Your task to perform on an android device: turn off priority inbox in the gmail app Image 0: 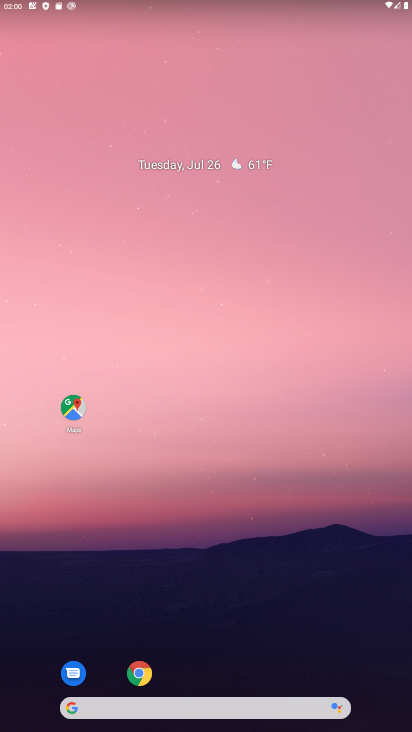
Step 0: drag from (210, 725) to (187, 131)
Your task to perform on an android device: turn off priority inbox in the gmail app Image 1: 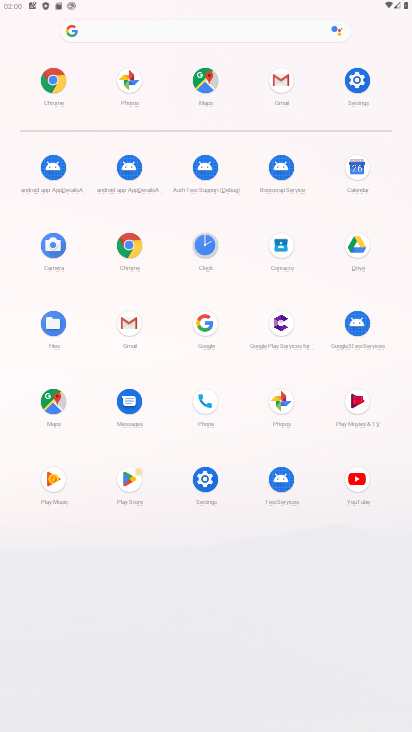
Step 1: click (131, 319)
Your task to perform on an android device: turn off priority inbox in the gmail app Image 2: 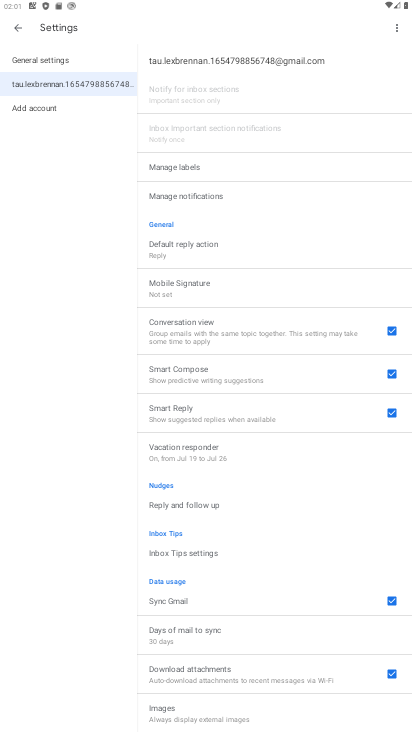
Step 2: drag from (169, 92) to (189, 419)
Your task to perform on an android device: turn off priority inbox in the gmail app Image 3: 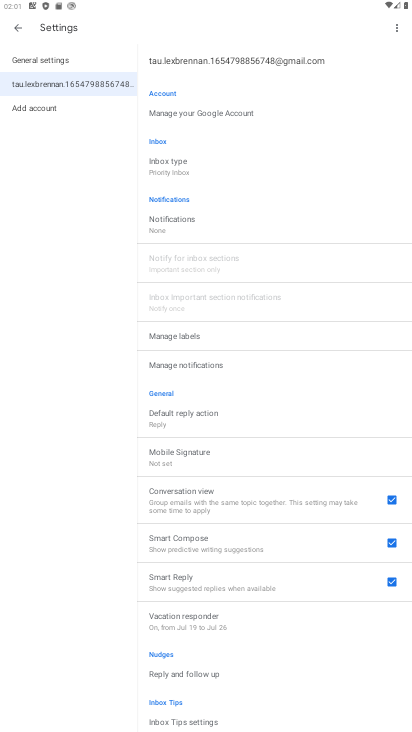
Step 3: click (169, 169)
Your task to perform on an android device: turn off priority inbox in the gmail app Image 4: 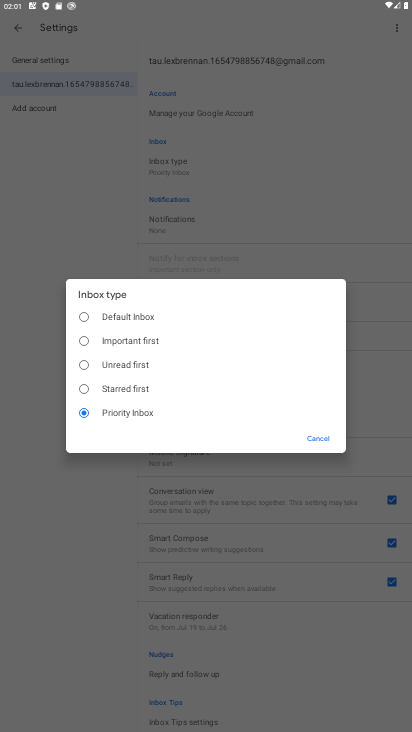
Step 4: click (84, 313)
Your task to perform on an android device: turn off priority inbox in the gmail app Image 5: 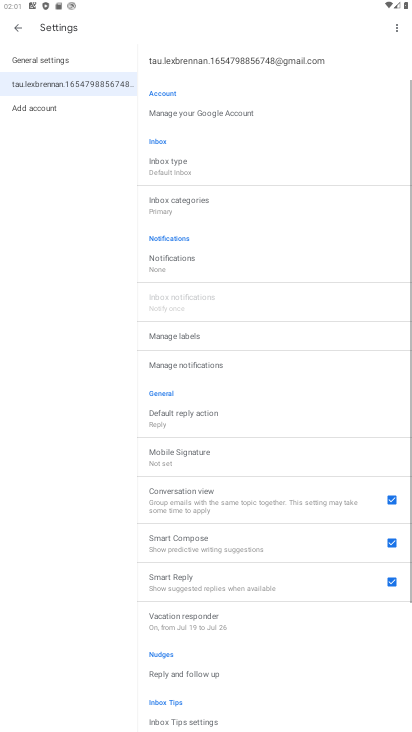
Step 5: task complete